Your task to perform on an android device: install app "Spotify: Music and Podcasts" Image 0: 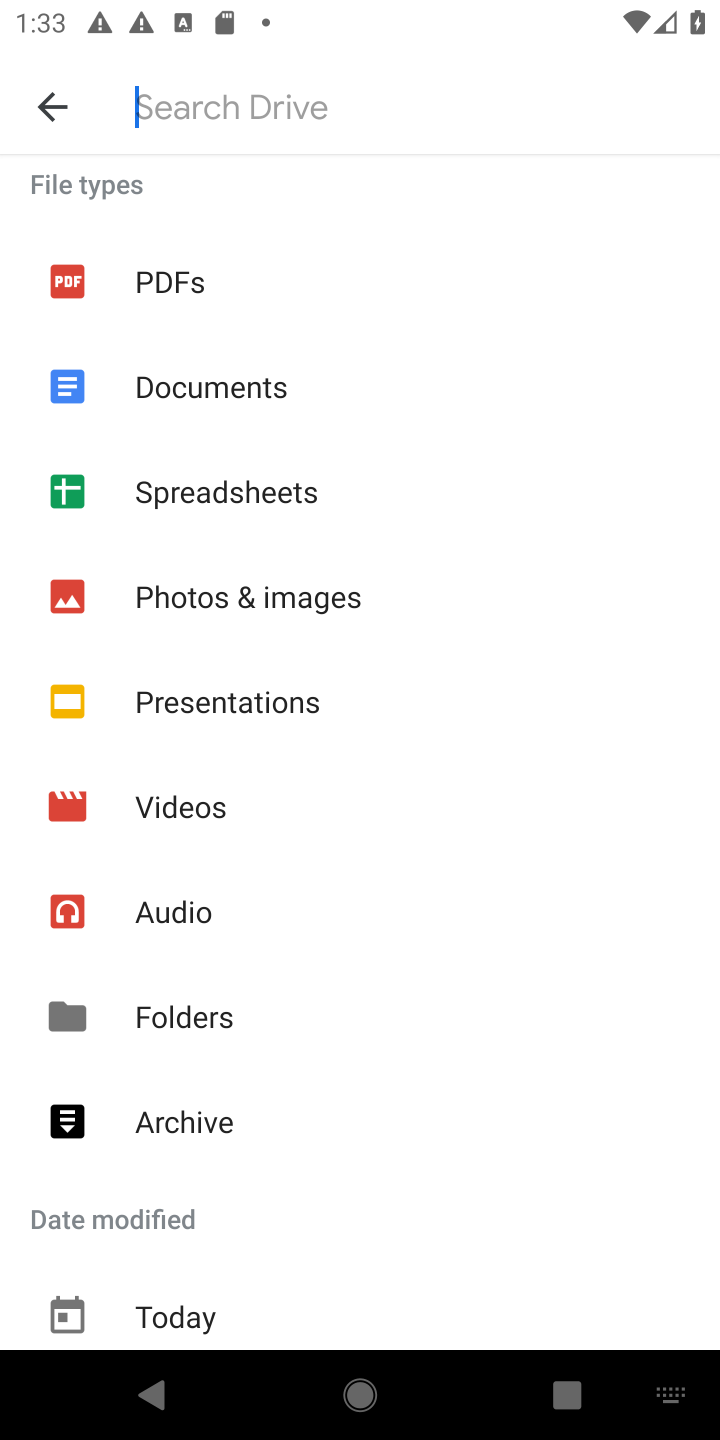
Step 0: press home button
Your task to perform on an android device: install app "Spotify: Music and Podcasts" Image 1: 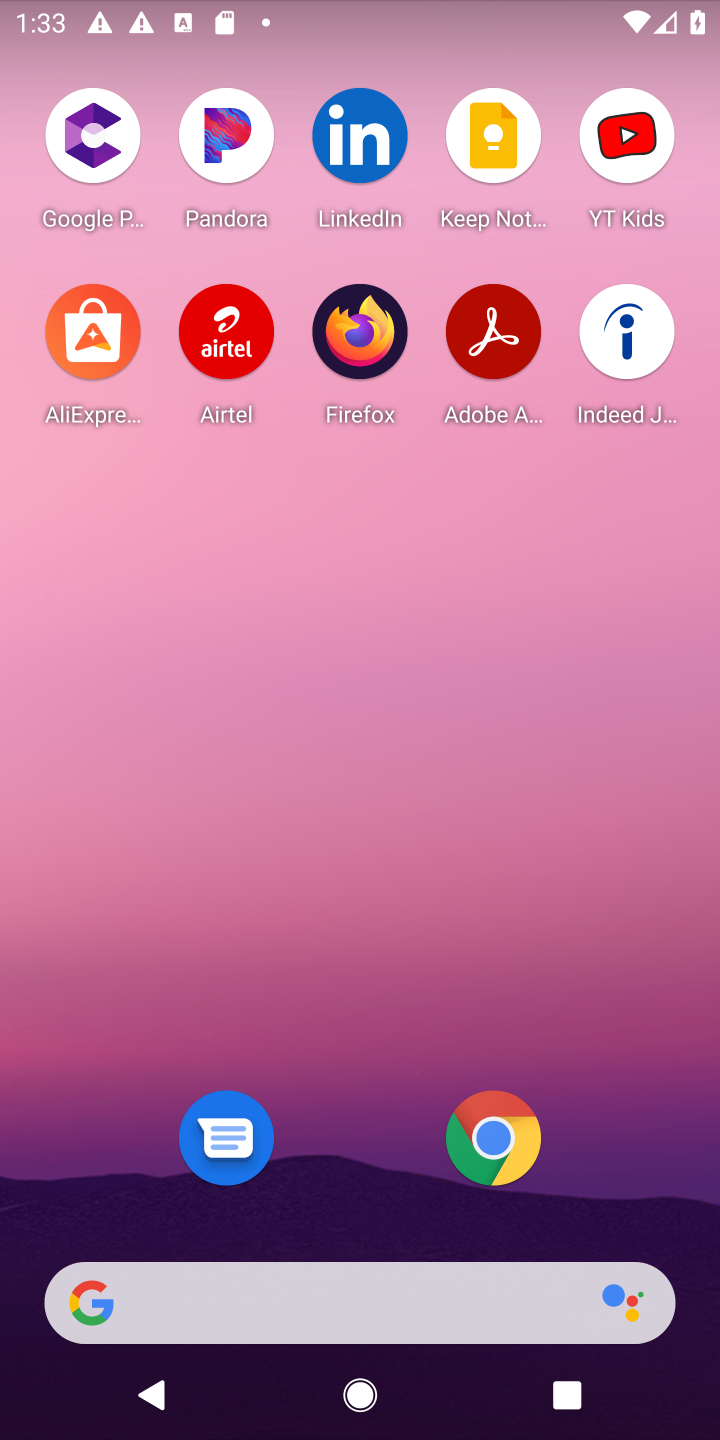
Step 1: drag from (611, 1060) to (615, 80)
Your task to perform on an android device: install app "Spotify: Music and Podcasts" Image 2: 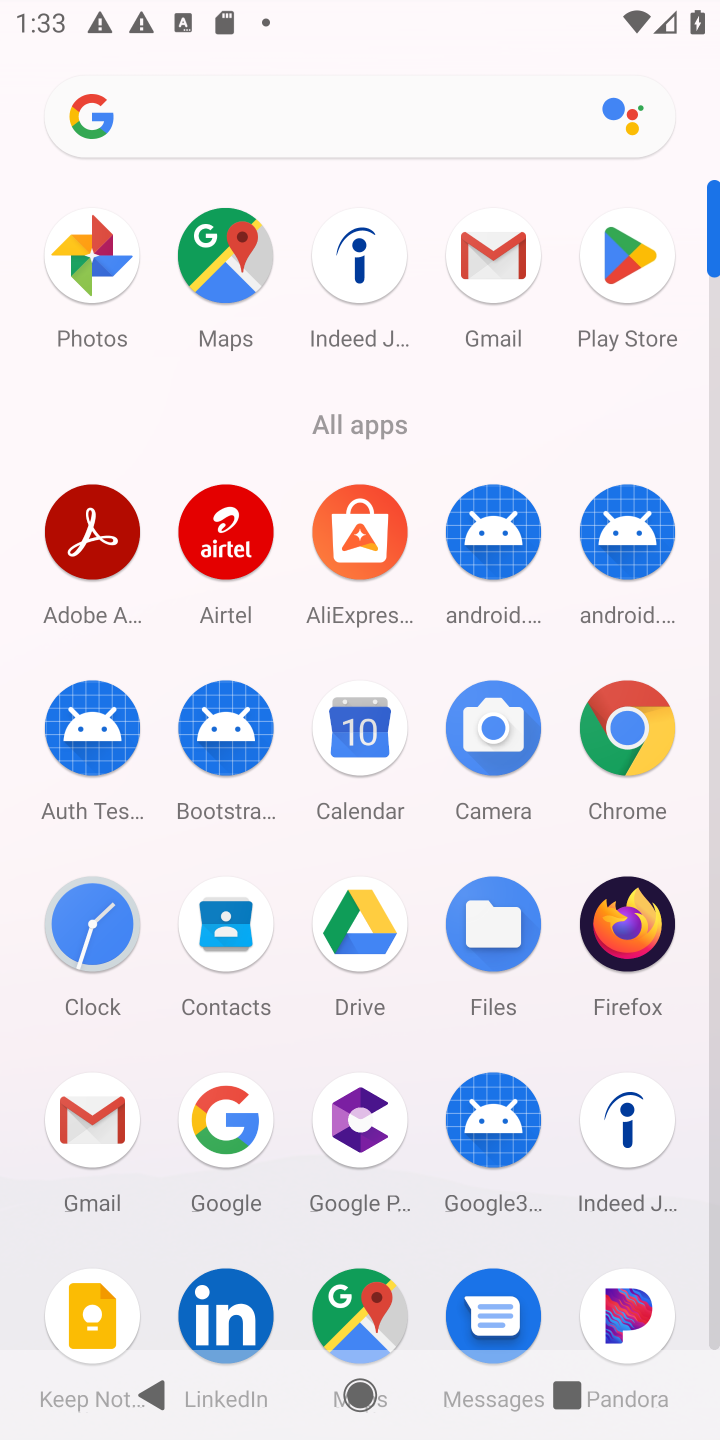
Step 2: click (630, 248)
Your task to perform on an android device: install app "Spotify: Music and Podcasts" Image 3: 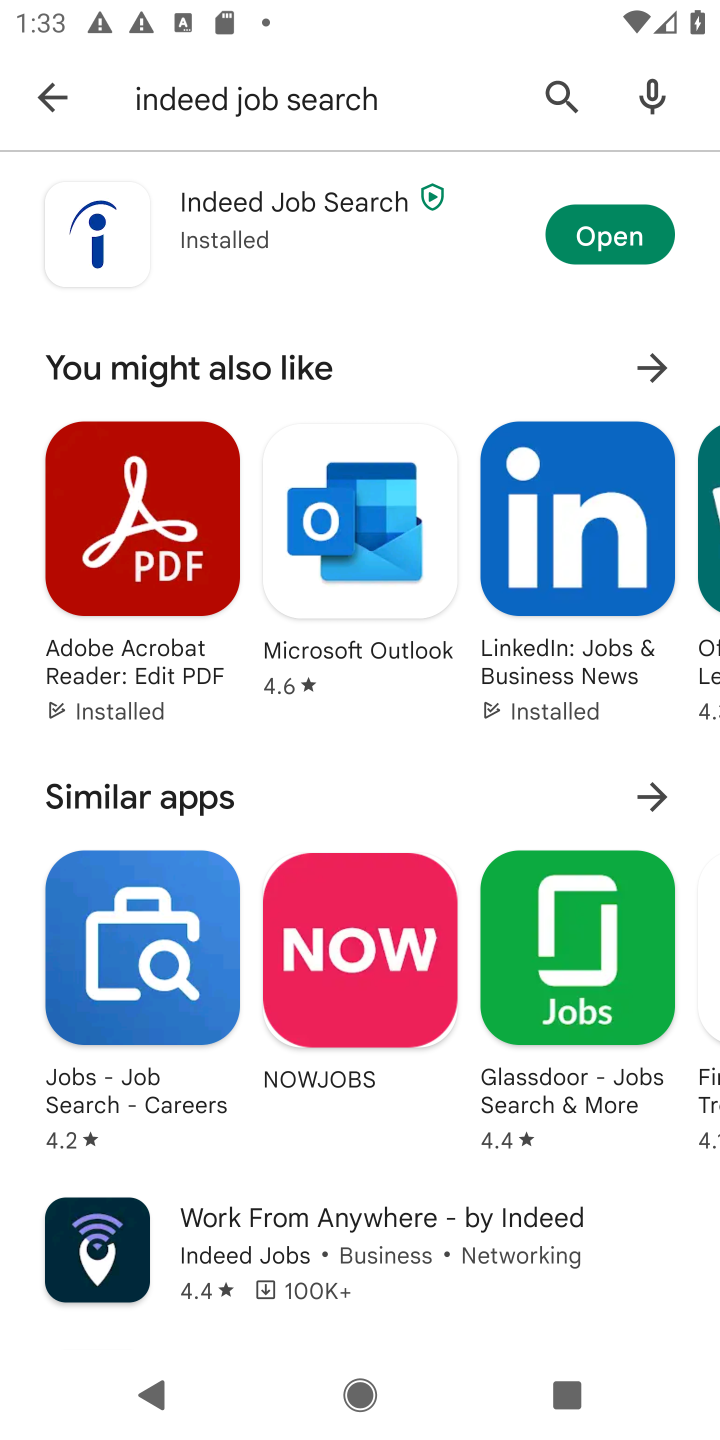
Step 3: click (556, 83)
Your task to perform on an android device: install app "Spotify: Music and Podcasts" Image 4: 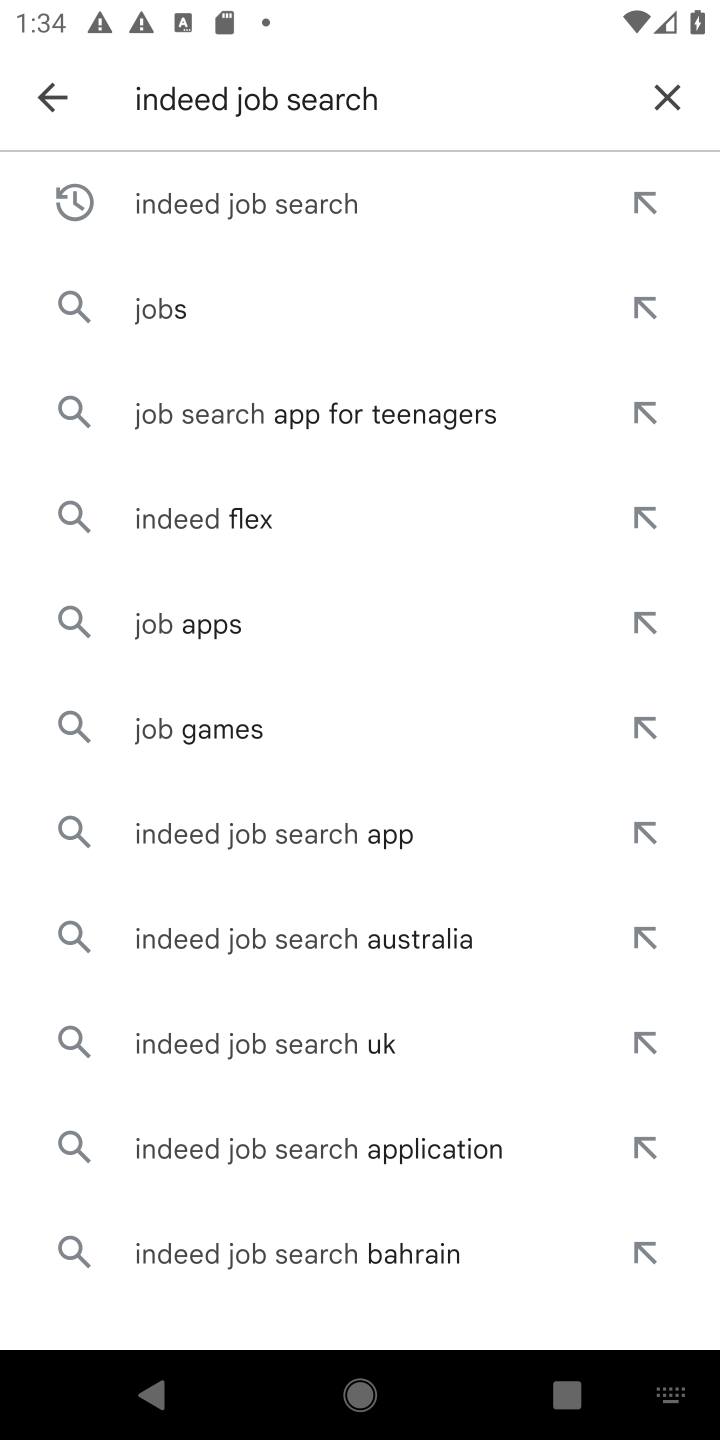
Step 4: click (660, 90)
Your task to perform on an android device: install app "Spotify: Music and Podcasts" Image 5: 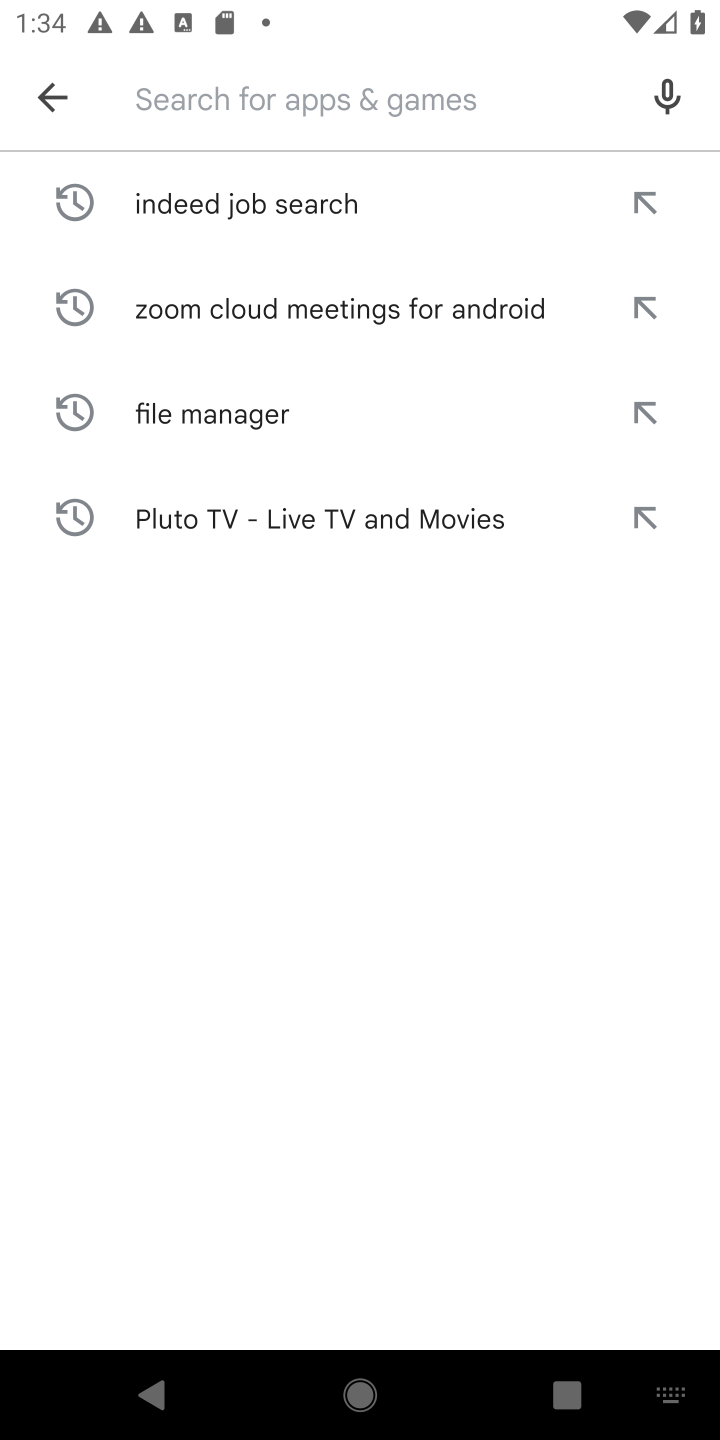
Step 5: press enter
Your task to perform on an android device: install app "Spotify: Music and Podcasts" Image 6: 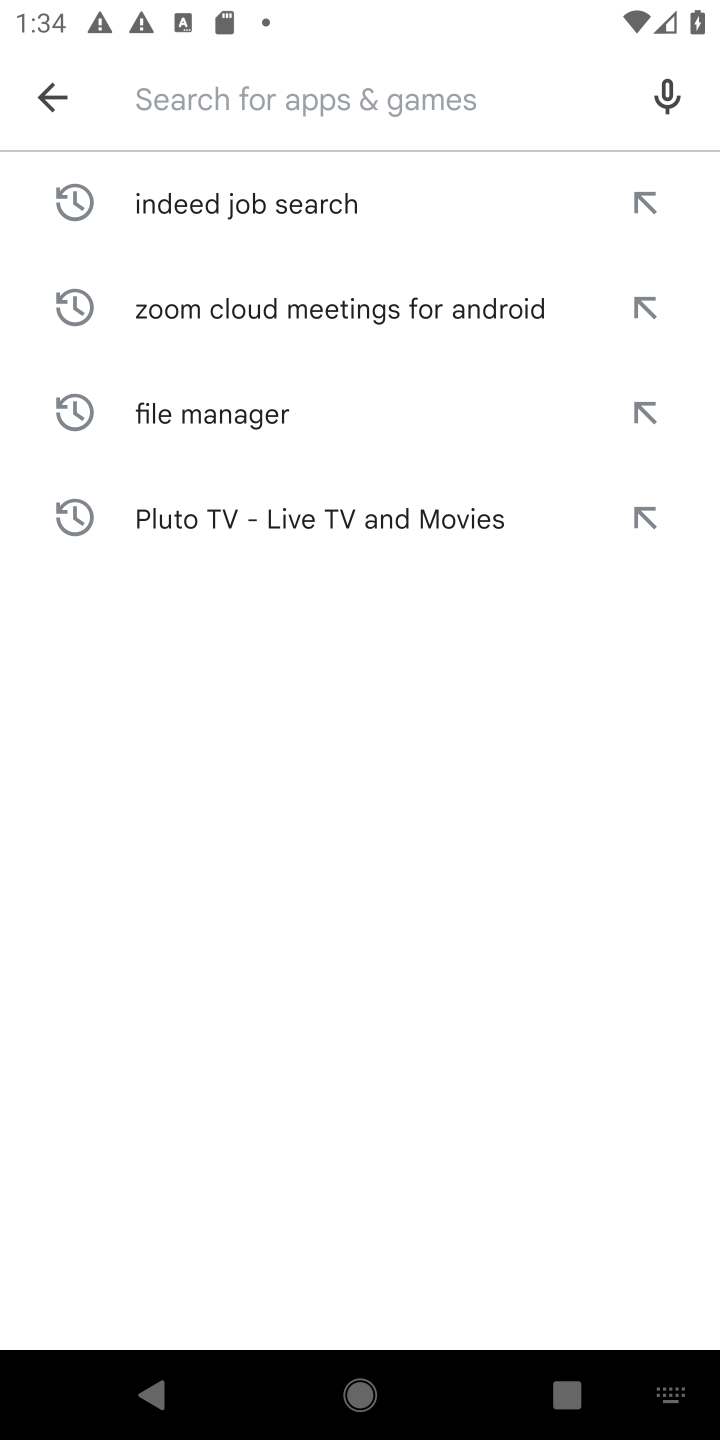
Step 6: type "Spotify: Music and Podcasts"
Your task to perform on an android device: install app "Spotify: Music and Podcasts" Image 7: 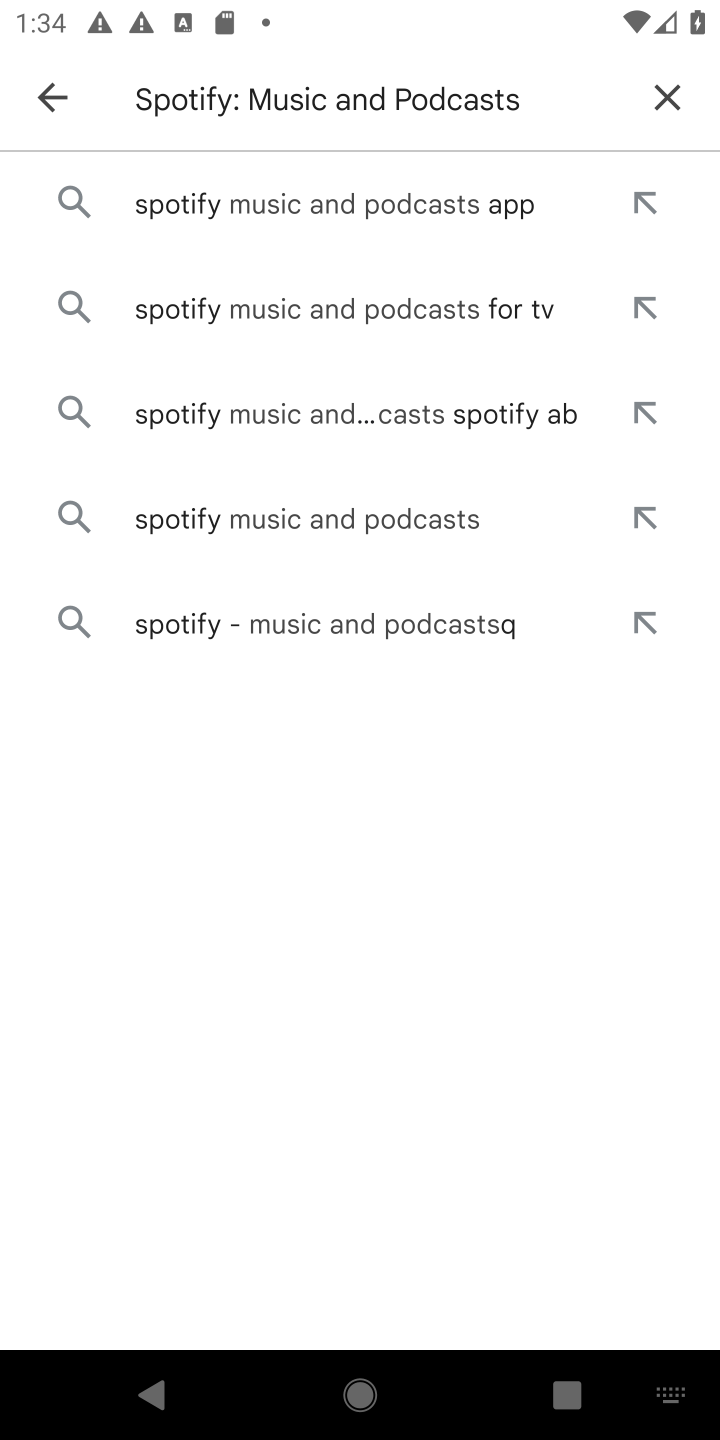
Step 7: click (482, 183)
Your task to perform on an android device: install app "Spotify: Music and Podcasts" Image 8: 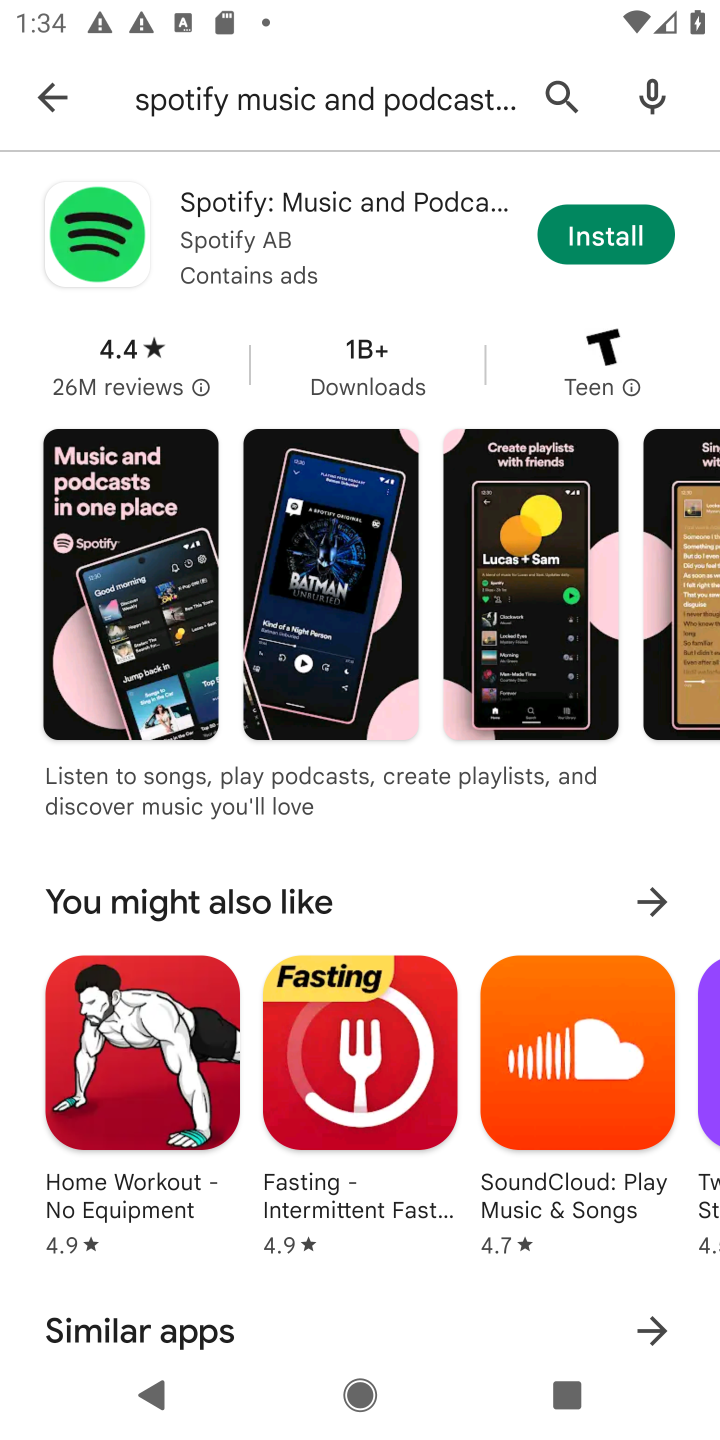
Step 8: click (630, 235)
Your task to perform on an android device: install app "Spotify: Music and Podcasts" Image 9: 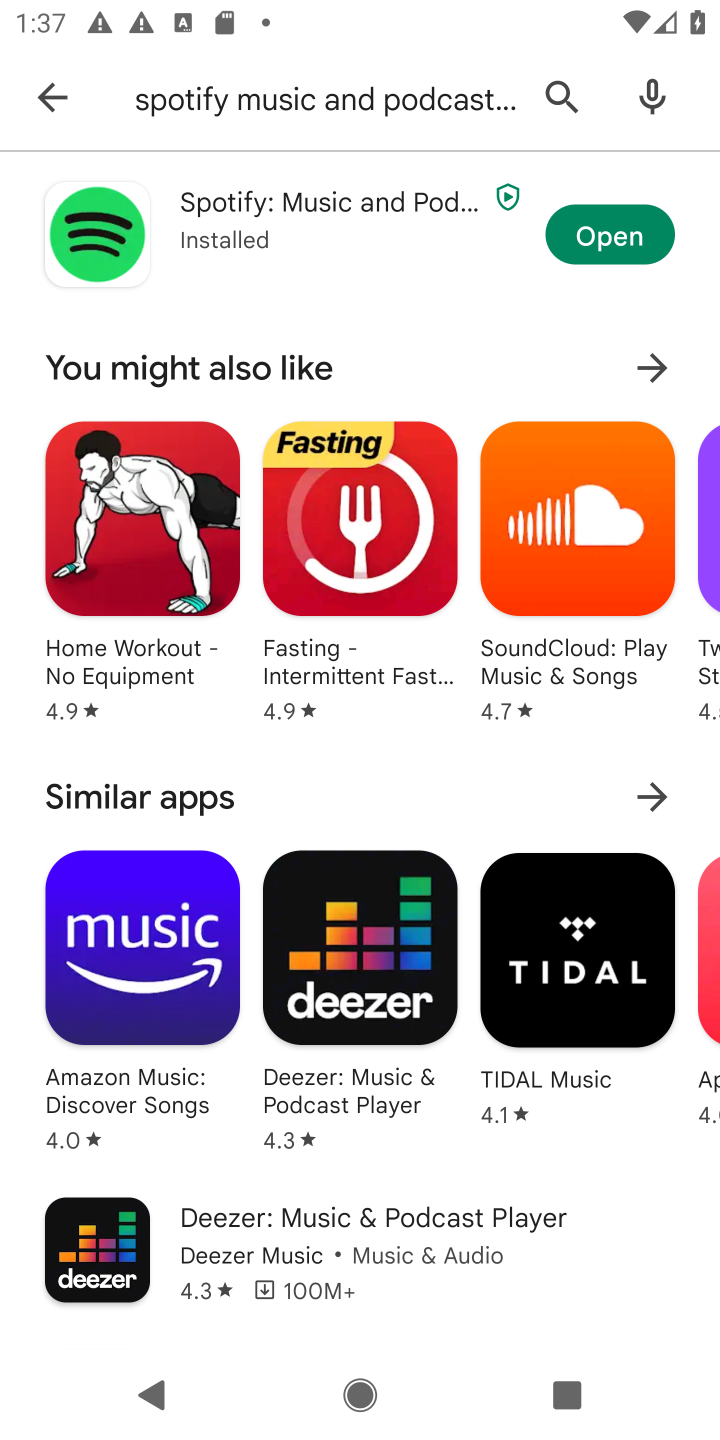
Step 9: task complete